Your task to perform on an android device: toggle wifi Image 0: 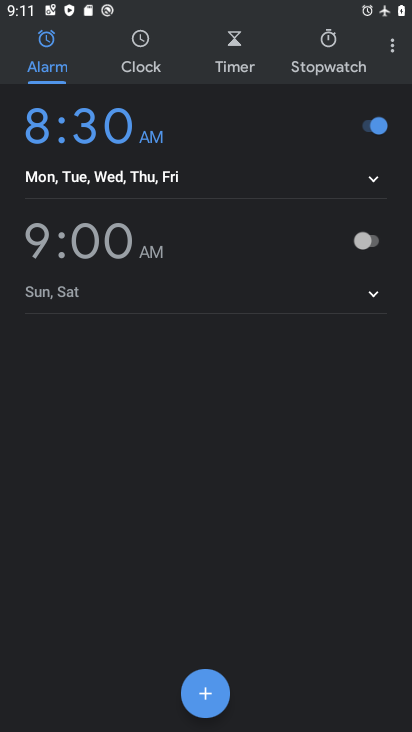
Step 0: press home button
Your task to perform on an android device: toggle wifi Image 1: 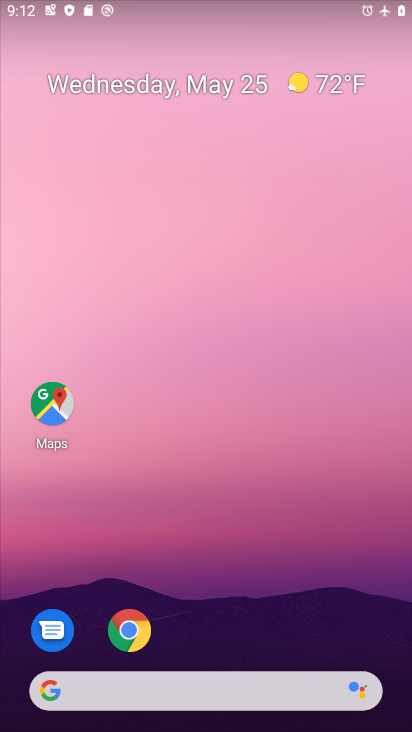
Step 1: drag from (221, 644) to (216, 130)
Your task to perform on an android device: toggle wifi Image 2: 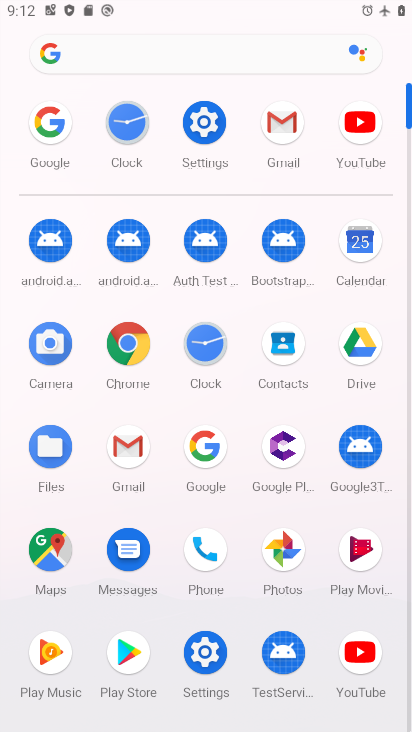
Step 2: click (216, 119)
Your task to perform on an android device: toggle wifi Image 3: 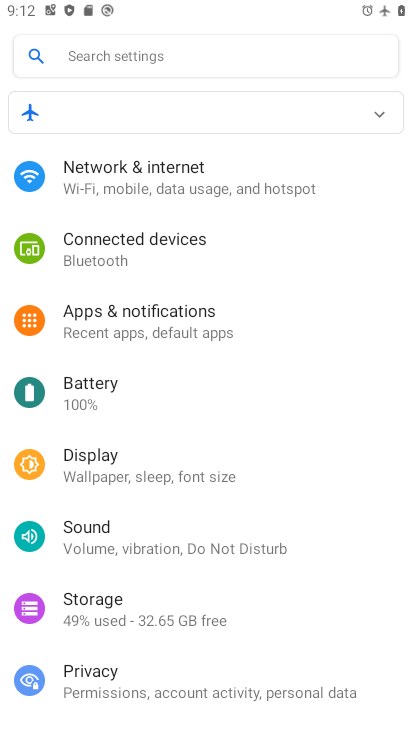
Step 3: click (171, 177)
Your task to perform on an android device: toggle wifi Image 4: 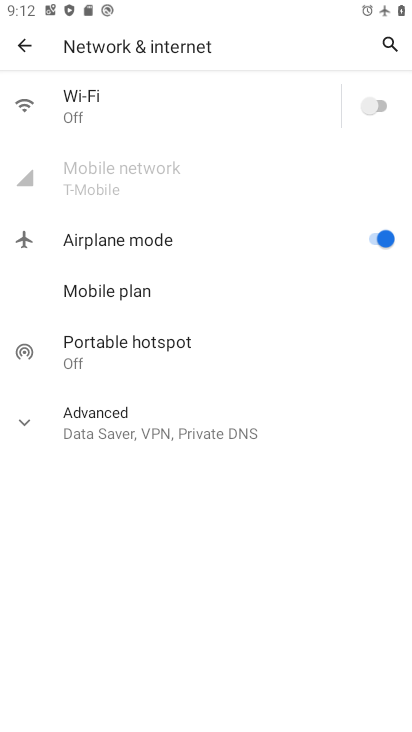
Step 4: click (373, 105)
Your task to perform on an android device: toggle wifi Image 5: 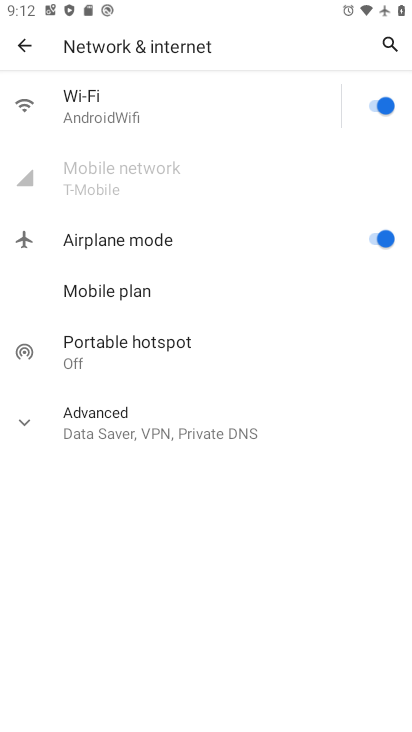
Step 5: task complete